Your task to perform on an android device: delete the emails in spam in the gmail app Image 0: 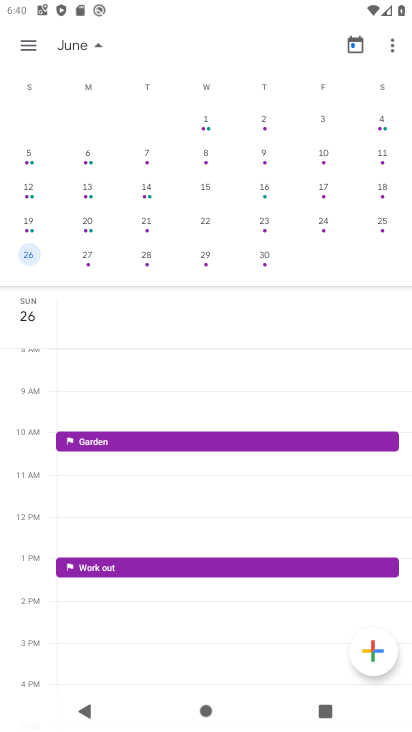
Step 0: press home button
Your task to perform on an android device: delete the emails in spam in the gmail app Image 1: 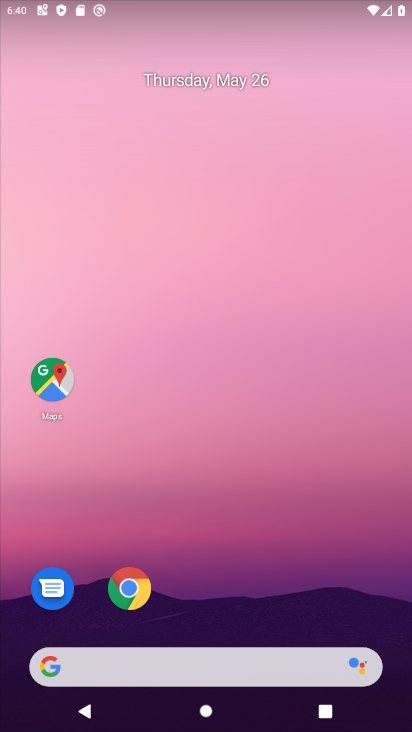
Step 1: drag from (397, 648) to (270, 28)
Your task to perform on an android device: delete the emails in spam in the gmail app Image 2: 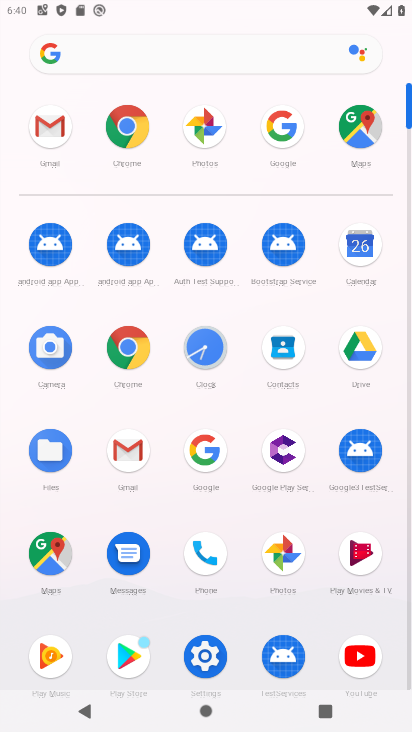
Step 2: click (147, 449)
Your task to perform on an android device: delete the emails in spam in the gmail app Image 3: 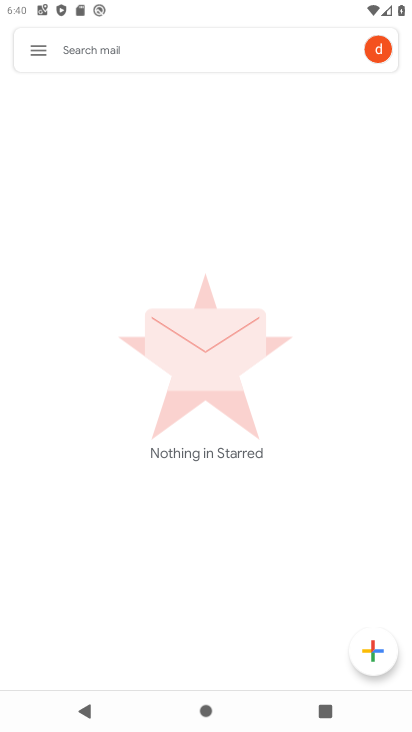
Step 3: click (48, 52)
Your task to perform on an android device: delete the emails in spam in the gmail app Image 4: 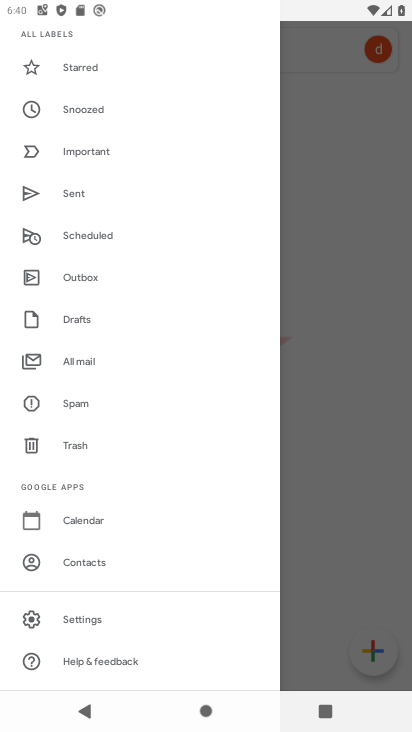
Step 4: click (81, 392)
Your task to perform on an android device: delete the emails in spam in the gmail app Image 5: 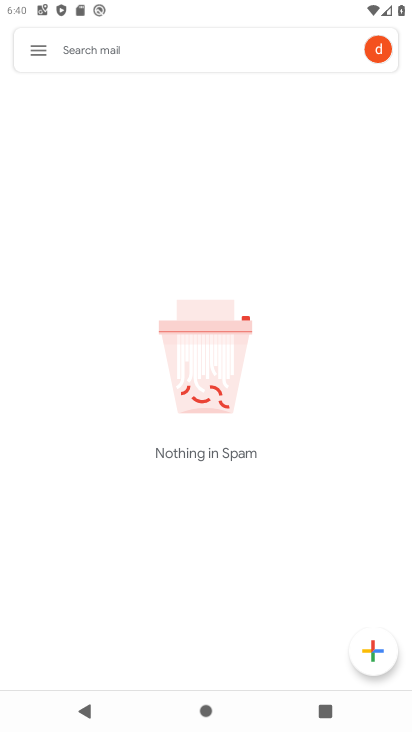
Step 5: task complete